Your task to perform on an android device: What's the weather going to be this weekend? Image 0: 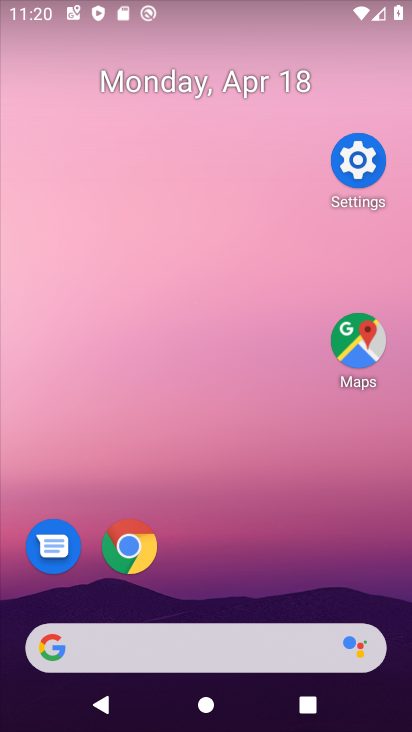
Step 0: drag from (24, 269) to (331, 339)
Your task to perform on an android device: What's the weather going to be this weekend? Image 1: 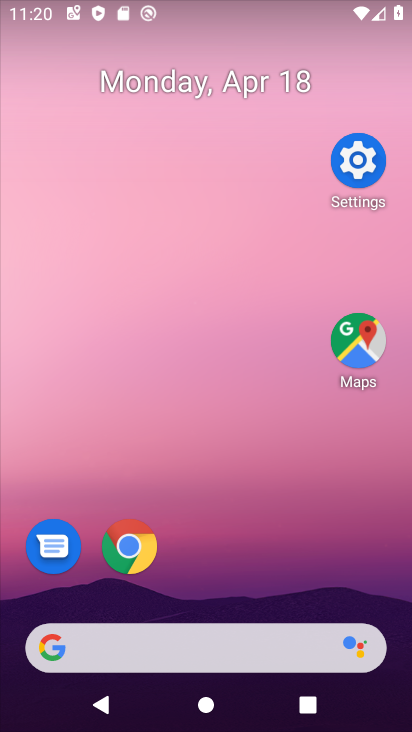
Step 1: drag from (14, 268) to (375, 240)
Your task to perform on an android device: What's the weather going to be this weekend? Image 2: 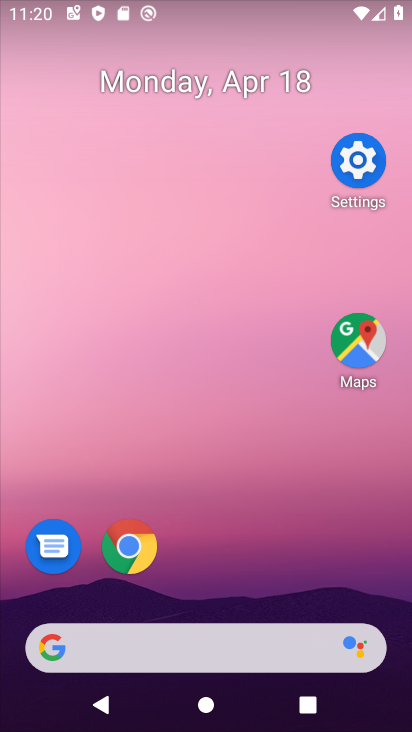
Step 2: drag from (382, 286) to (360, 321)
Your task to perform on an android device: What's the weather going to be this weekend? Image 3: 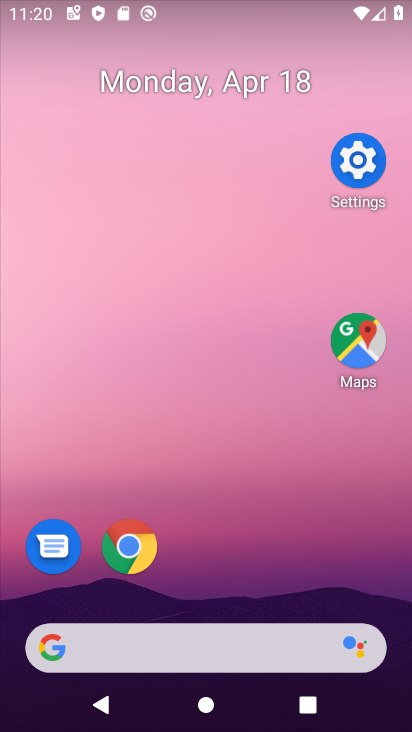
Step 3: click (266, 295)
Your task to perform on an android device: What's the weather going to be this weekend? Image 4: 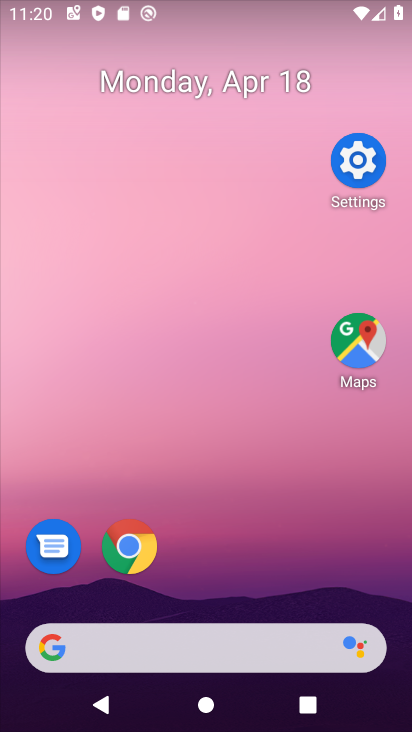
Step 4: drag from (344, 264) to (305, 244)
Your task to perform on an android device: What's the weather going to be this weekend? Image 5: 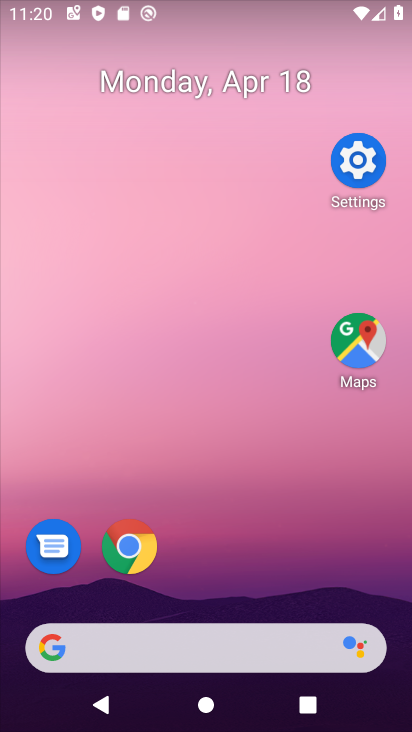
Step 5: drag from (353, 248) to (409, 203)
Your task to perform on an android device: What's the weather going to be this weekend? Image 6: 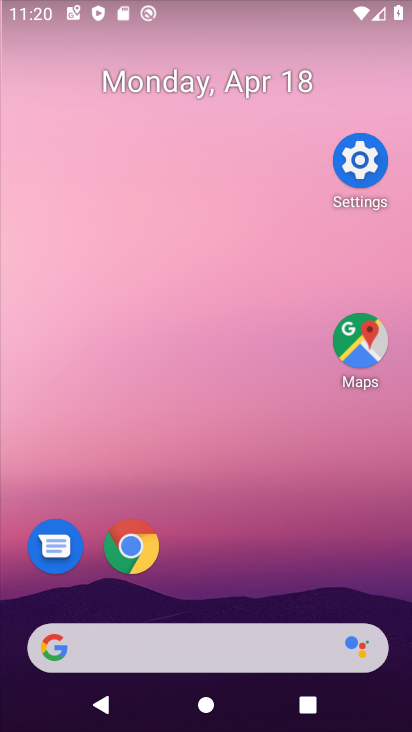
Step 6: drag from (62, 258) to (392, 301)
Your task to perform on an android device: What's the weather going to be this weekend? Image 7: 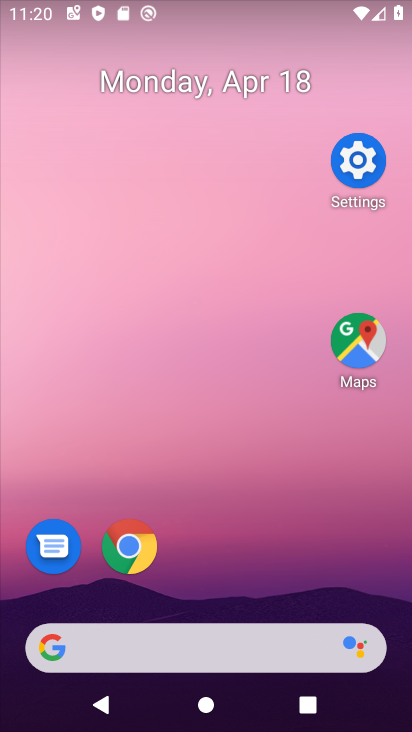
Step 7: drag from (21, 259) to (407, 238)
Your task to perform on an android device: What's the weather going to be this weekend? Image 8: 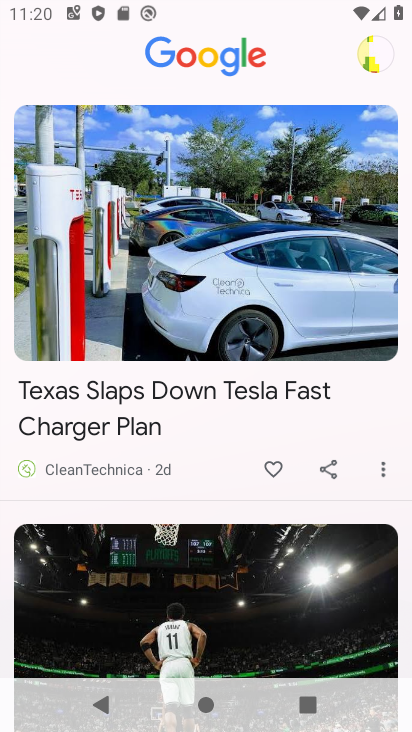
Step 8: drag from (182, 163) to (283, 710)
Your task to perform on an android device: What's the weather going to be this weekend? Image 9: 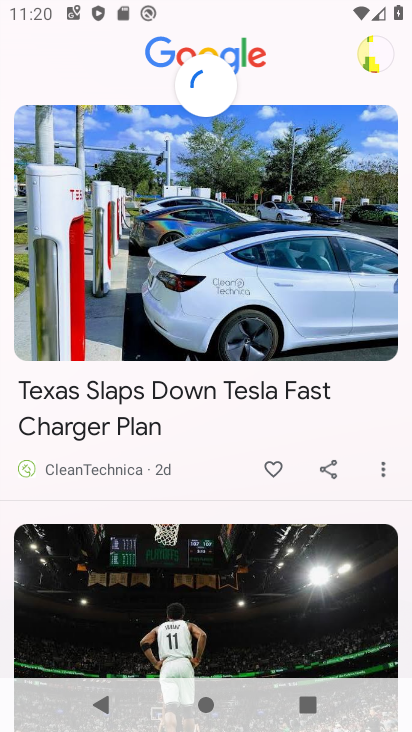
Step 9: drag from (197, 197) to (196, 126)
Your task to perform on an android device: What's the weather going to be this weekend? Image 10: 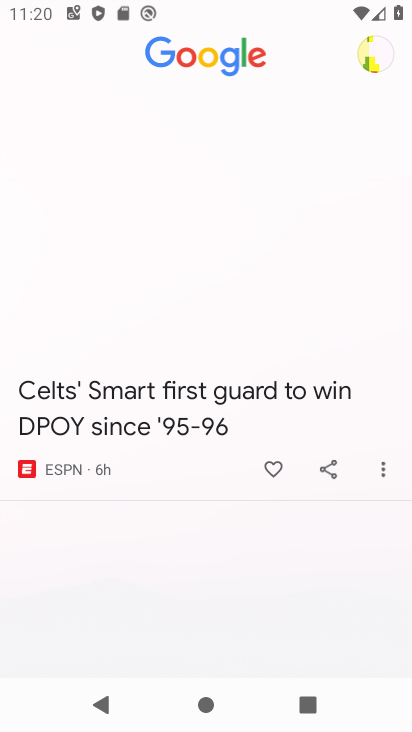
Step 10: drag from (266, 568) to (277, 506)
Your task to perform on an android device: What's the weather going to be this weekend? Image 11: 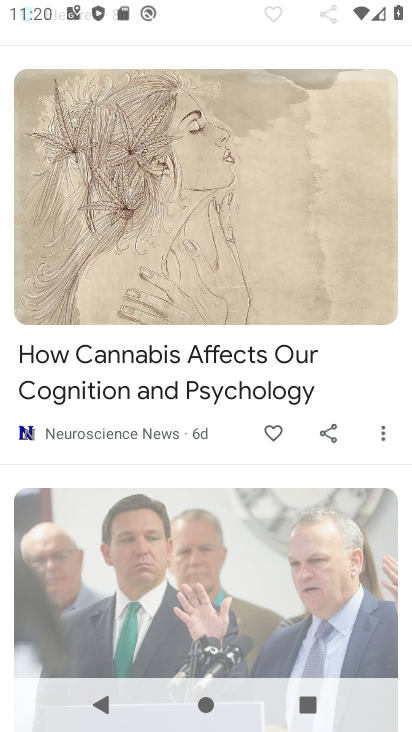
Step 11: drag from (265, 219) to (331, 567)
Your task to perform on an android device: What's the weather going to be this weekend? Image 12: 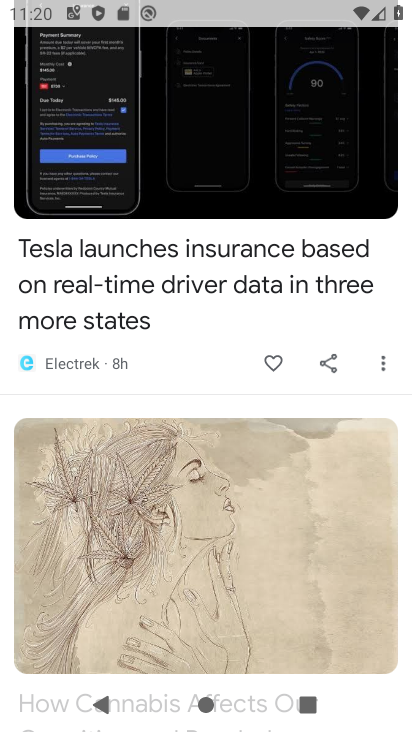
Step 12: drag from (259, 103) to (313, 466)
Your task to perform on an android device: What's the weather going to be this weekend? Image 13: 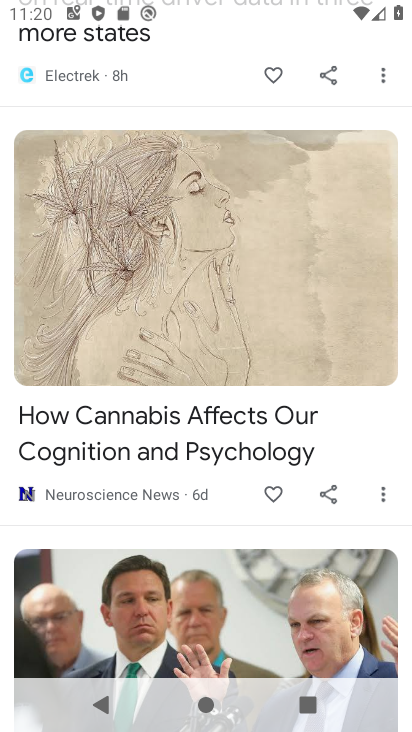
Step 13: drag from (249, 88) to (316, 692)
Your task to perform on an android device: What's the weather going to be this weekend? Image 14: 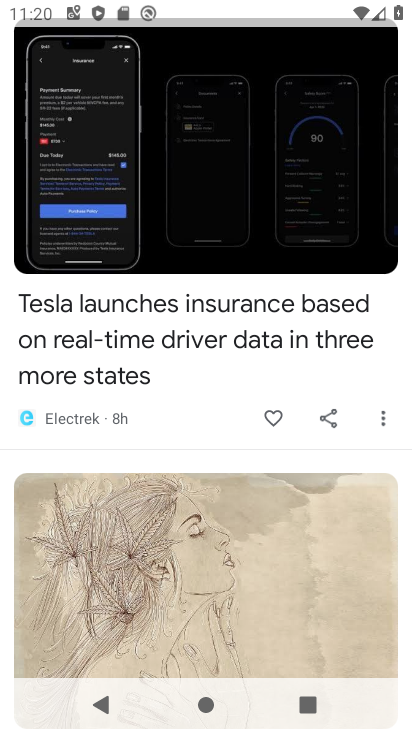
Step 14: drag from (211, 128) to (332, 546)
Your task to perform on an android device: What's the weather going to be this weekend? Image 15: 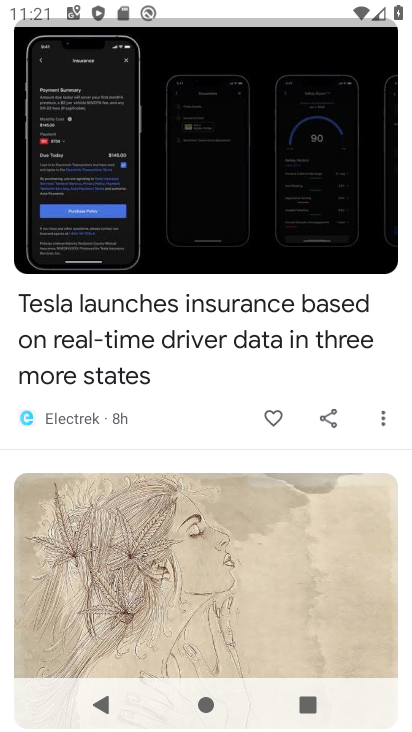
Step 15: drag from (106, 82) to (303, 561)
Your task to perform on an android device: What's the weather going to be this weekend? Image 16: 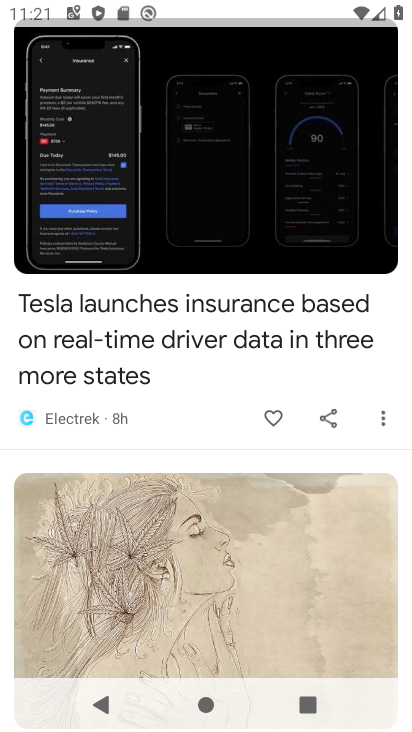
Step 16: drag from (180, 349) to (301, 497)
Your task to perform on an android device: What's the weather going to be this weekend? Image 17: 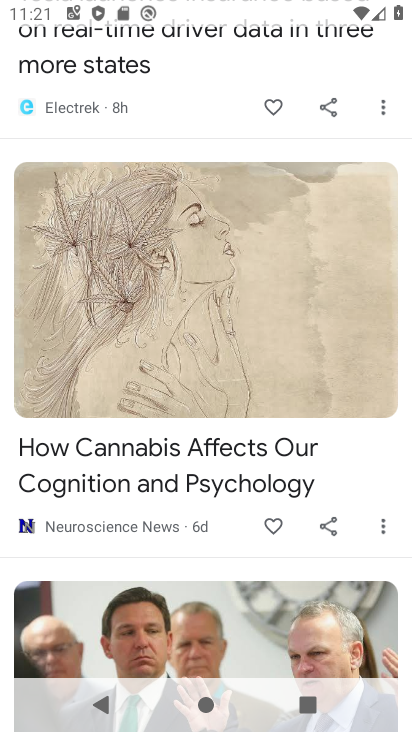
Step 17: click (235, 471)
Your task to perform on an android device: What's the weather going to be this weekend? Image 18: 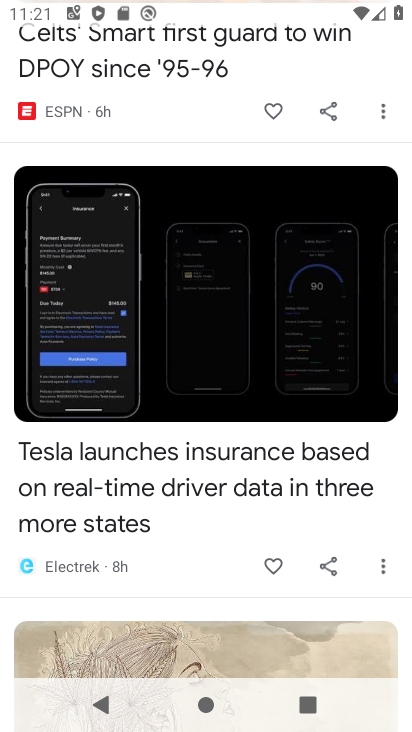
Step 18: drag from (143, 10) to (165, 467)
Your task to perform on an android device: What's the weather going to be this weekend? Image 19: 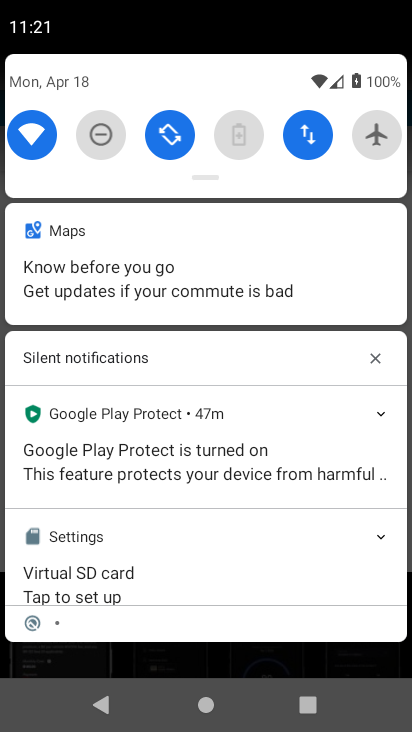
Step 19: click (178, 665)
Your task to perform on an android device: What's the weather going to be this weekend? Image 20: 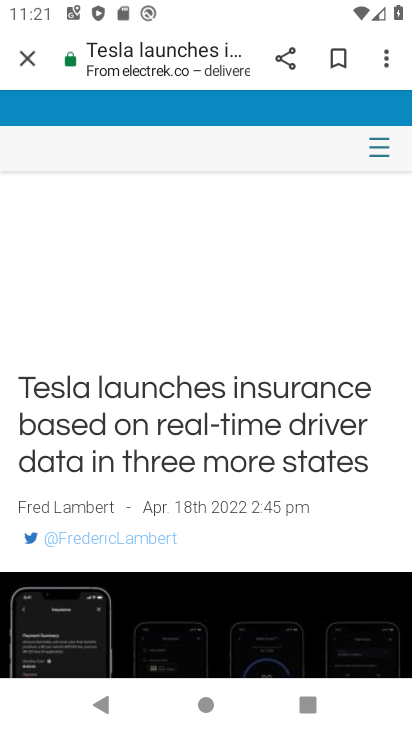
Step 20: click (179, 597)
Your task to perform on an android device: What's the weather going to be this weekend? Image 21: 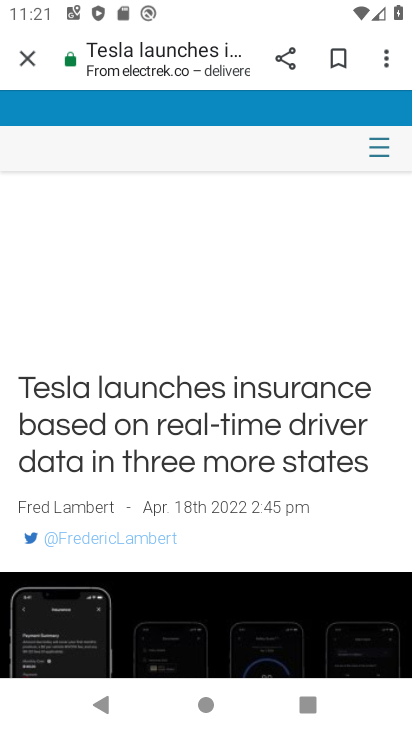
Step 21: click (16, 56)
Your task to perform on an android device: What's the weather going to be this weekend? Image 22: 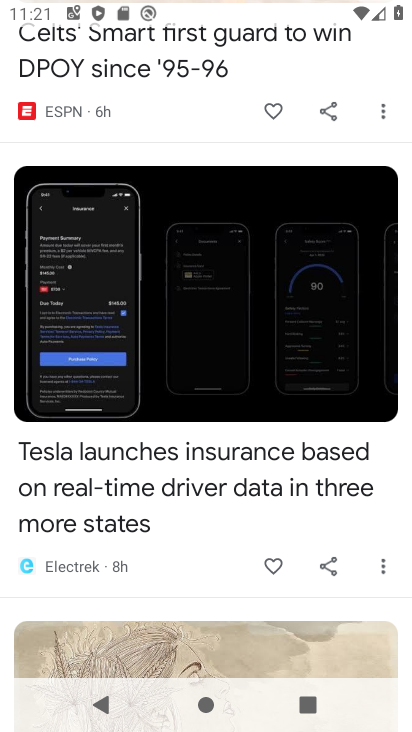
Step 22: task complete